Your task to perform on an android device: Open maps Image 0: 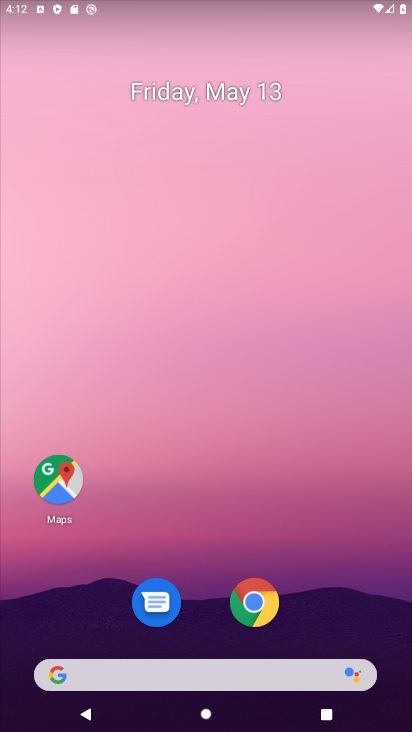
Step 0: click (60, 482)
Your task to perform on an android device: Open maps Image 1: 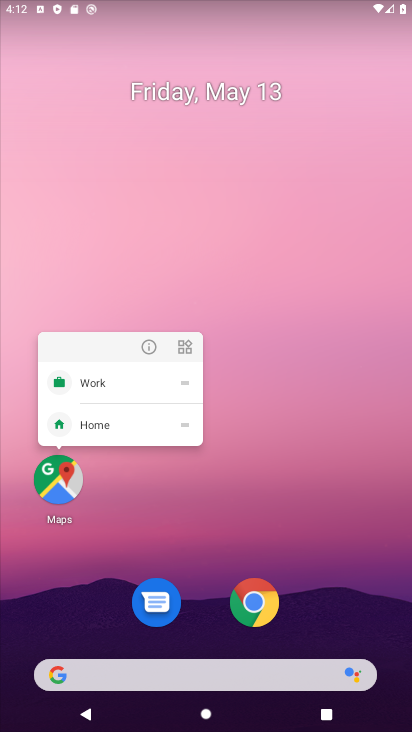
Step 1: click (60, 482)
Your task to perform on an android device: Open maps Image 2: 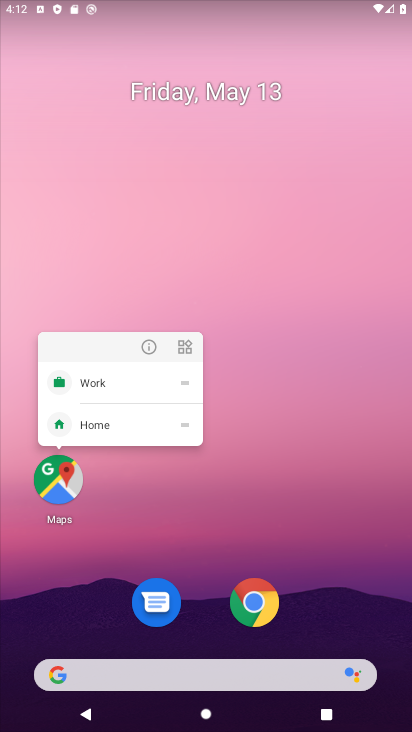
Step 2: click (41, 483)
Your task to perform on an android device: Open maps Image 3: 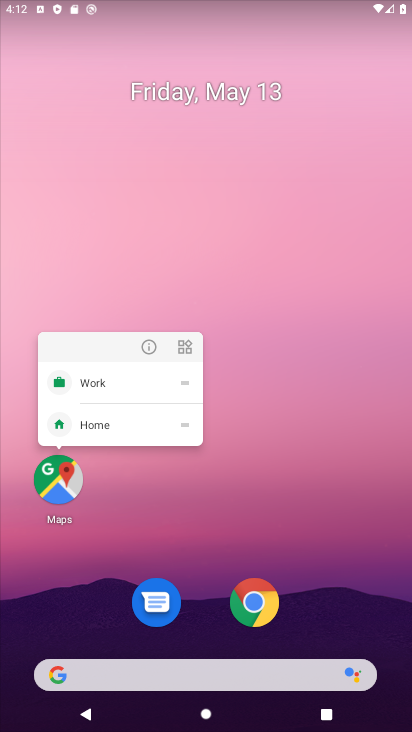
Step 3: click (63, 495)
Your task to perform on an android device: Open maps Image 4: 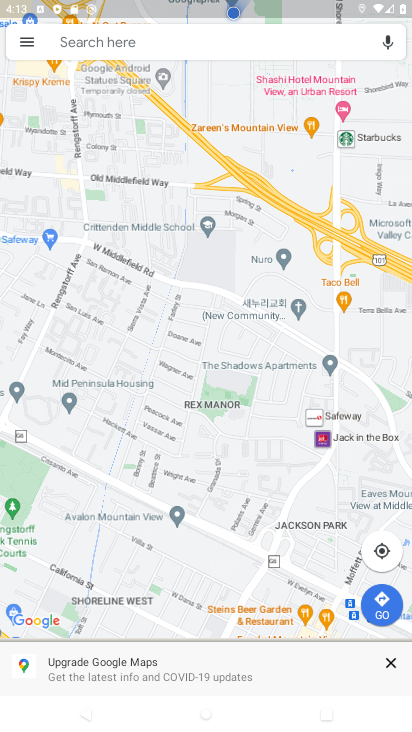
Step 4: task complete